Your task to perform on an android device: Search for pizza restaurants on Maps Image 0: 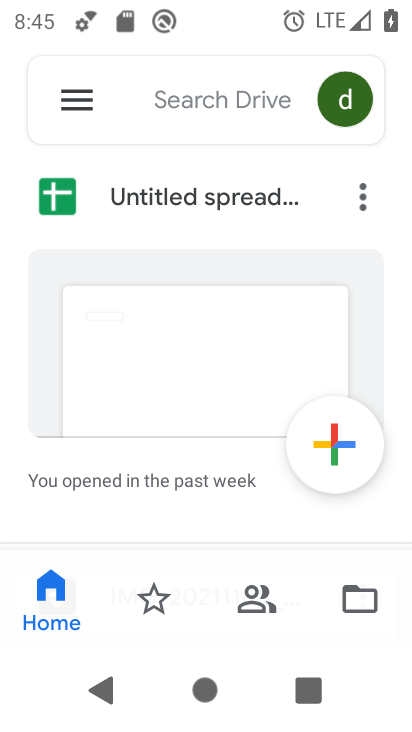
Step 0: press home button
Your task to perform on an android device: Search for pizza restaurants on Maps Image 1: 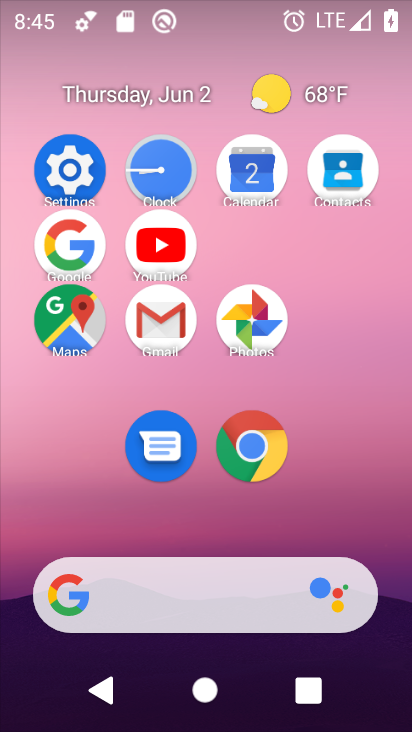
Step 1: click (53, 333)
Your task to perform on an android device: Search for pizza restaurants on Maps Image 2: 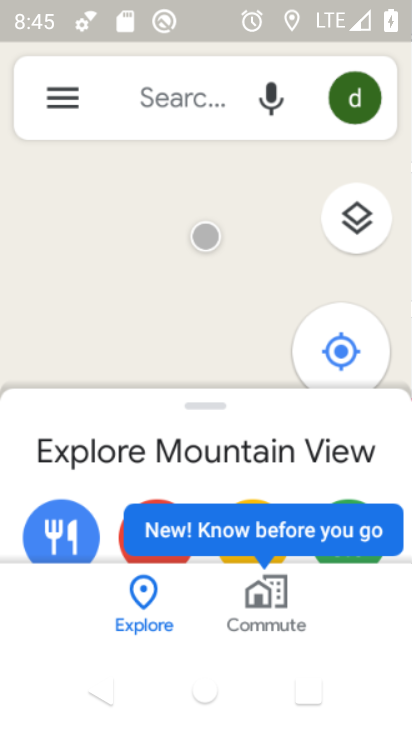
Step 2: click (175, 77)
Your task to perform on an android device: Search for pizza restaurants on Maps Image 3: 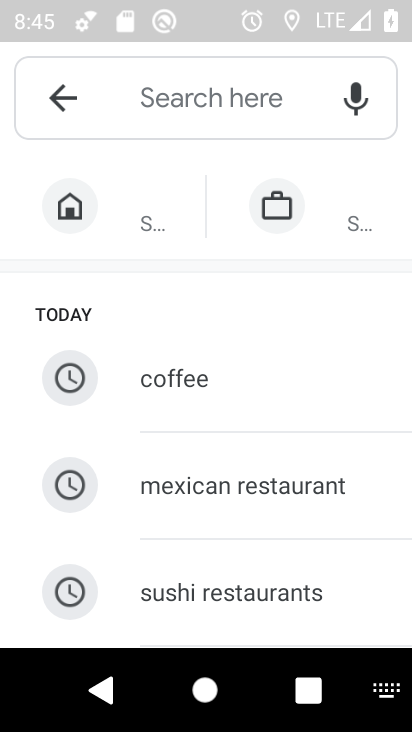
Step 3: click (168, 100)
Your task to perform on an android device: Search for pizza restaurants on Maps Image 4: 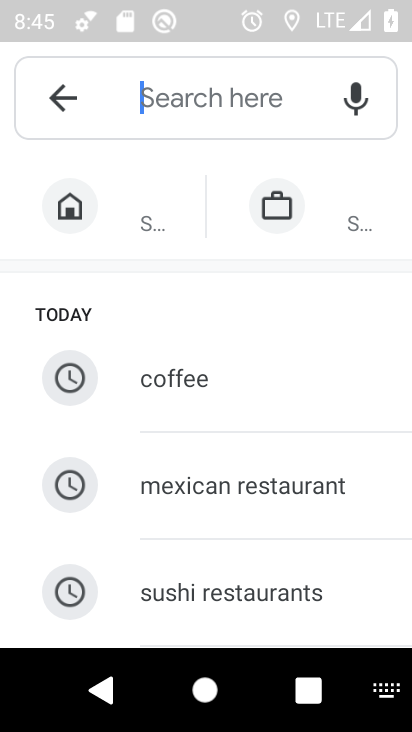
Step 4: drag from (224, 446) to (247, 209)
Your task to perform on an android device: Search for pizza restaurants on Maps Image 5: 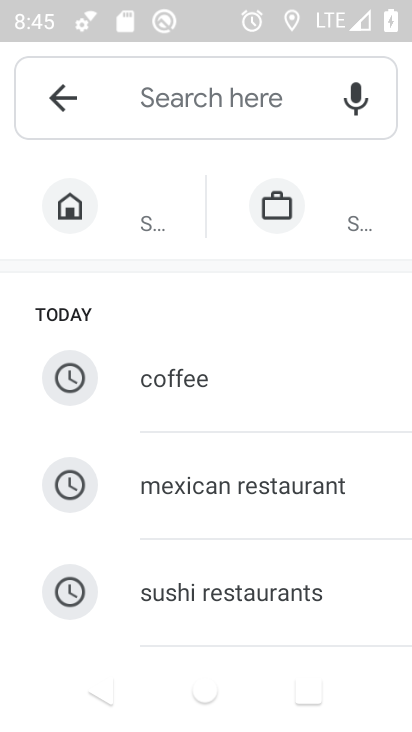
Step 5: drag from (273, 575) to (212, 134)
Your task to perform on an android device: Search for pizza restaurants on Maps Image 6: 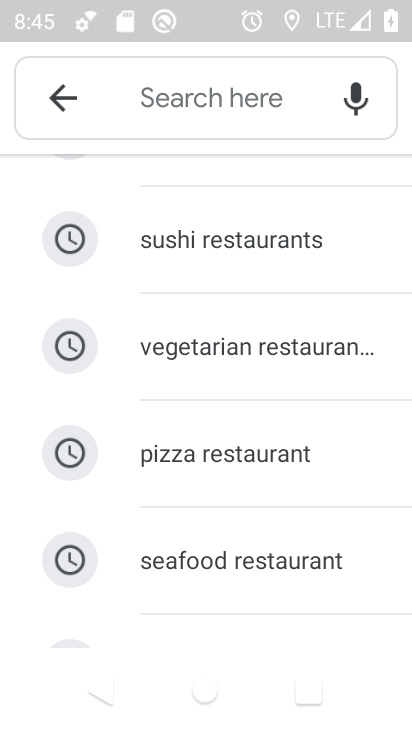
Step 6: click (269, 461)
Your task to perform on an android device: Search for pizza restaurants on Maps Image 7: 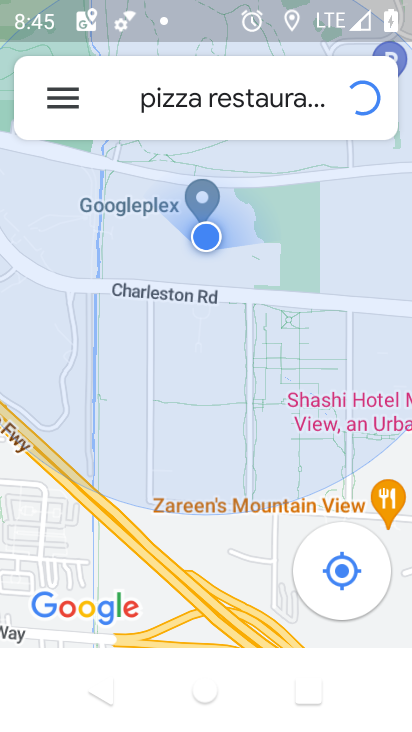
Step 7: task complete